Your task to perform on an android device: turn off picture-in-picture Image 0: 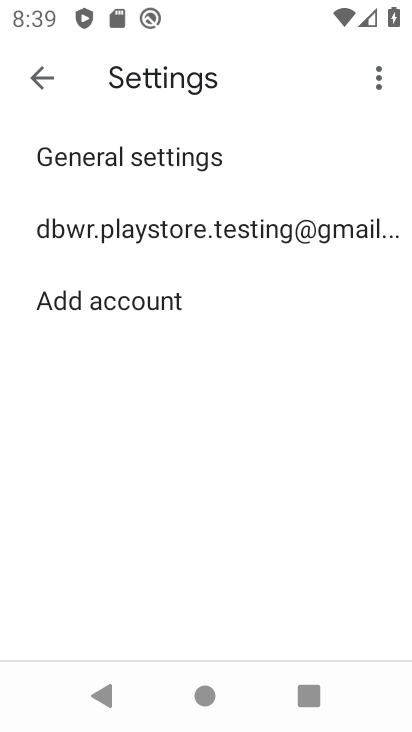
Step 0: press back button
Your task to perform on an android device: turn off picture-in-picture Image 1: 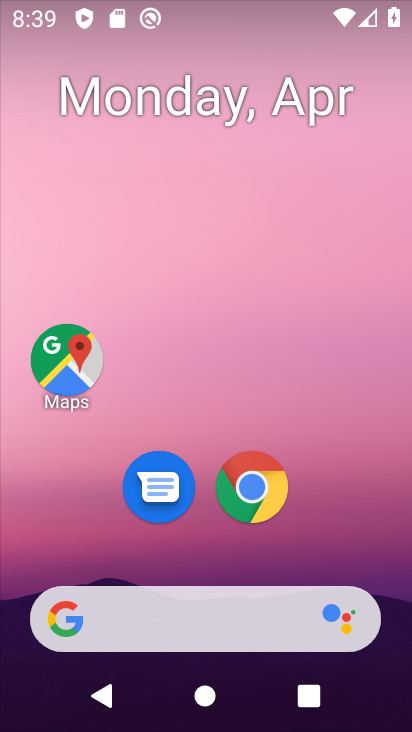
Step 1: drag from (203, 726) to (187, 43)
Your task to perform on an android device: turn off picture-in-picture Image 2: 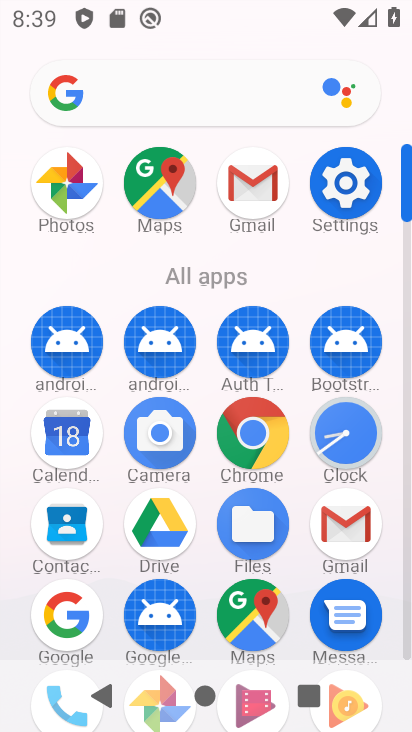
Step 2: click (344, 186)
Your task to perform on an android device: turn off picture-in-picture Image 3: 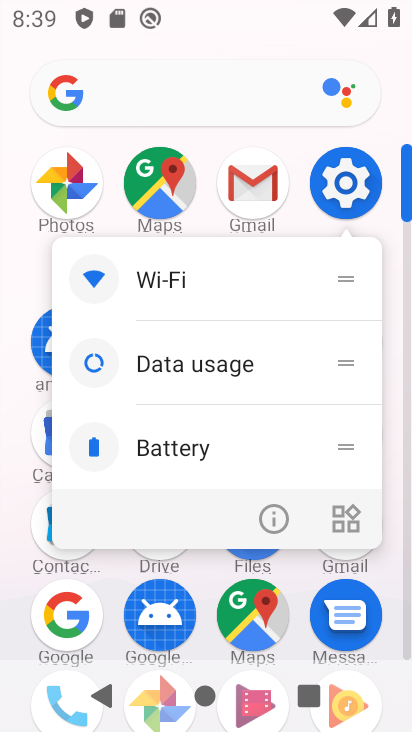
Step 3: click (345, 181)
Your task to perform on an android device: turn off picture-in-picture Image 4: 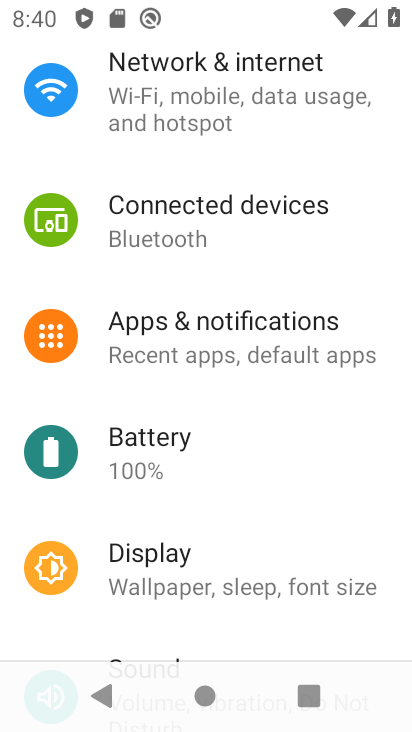
Step 4: drag from (217, 159) to (207, 446)
Your task to perform on an android device: turn off picture-in-picture Image 5: 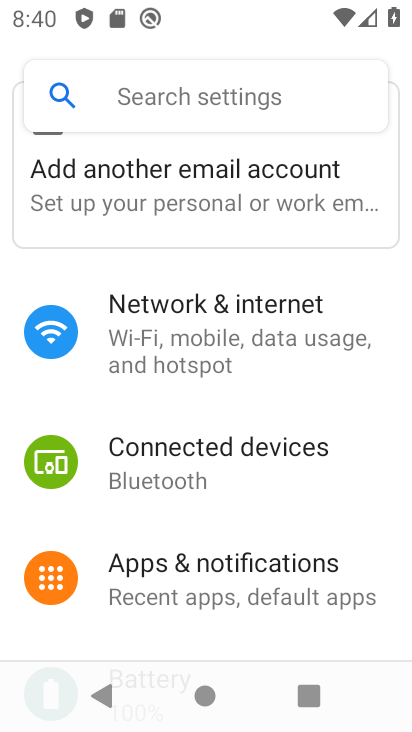
Step 5: click (200, 587)
Your task to perform on an android device: turn off picture-in-picture Image 6: 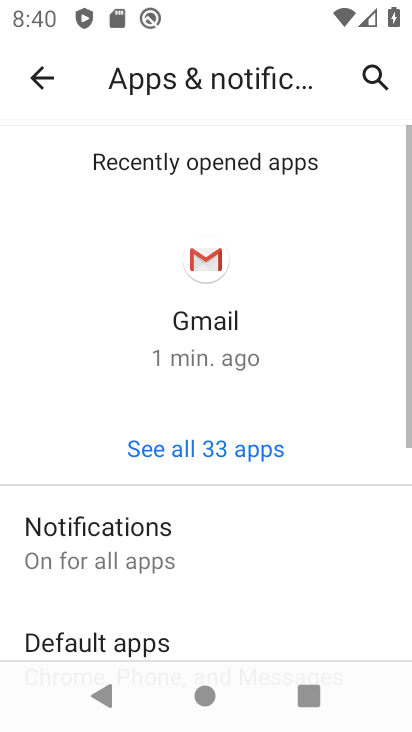
Step 6: drag from (193, 621) to (207, 241)
Your task to perform on an android device: turn off picture-in-picture Image 7: 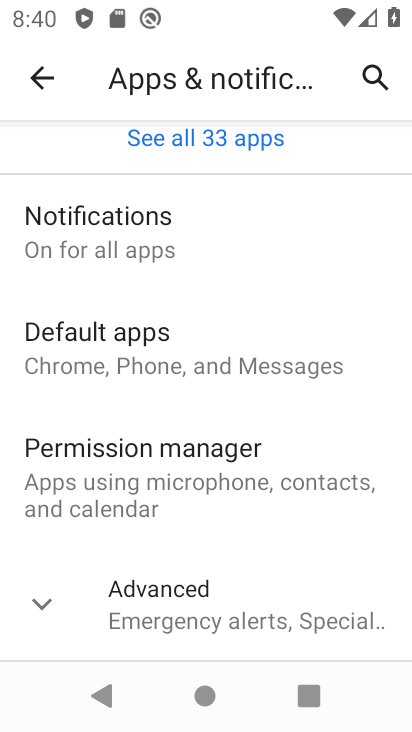
Step 7: click (163, 608)
Your task to perform on an android device: turn off picture-in-picture Image 8: 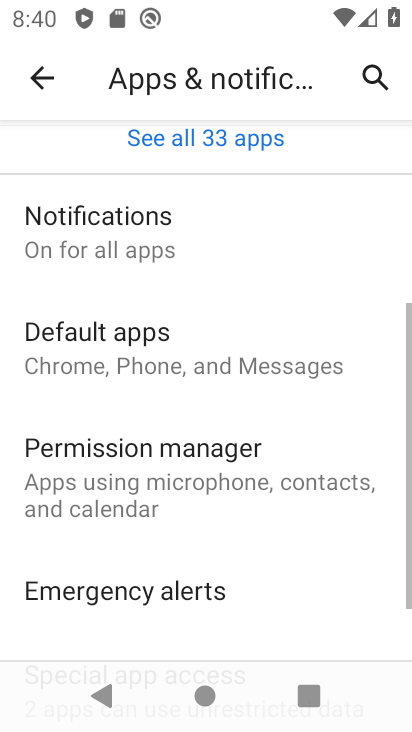
Step 8: drag from (199, 624) to (210, 272)
Your task to perform on an android device: turn off picture-in-picture Image 9: 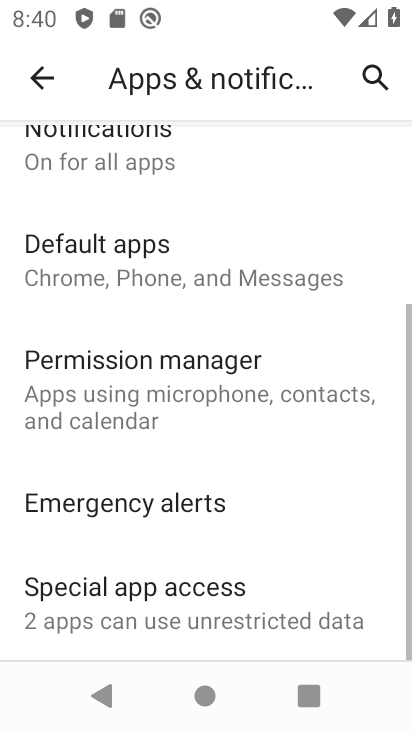
Step 9: click (155, 603)
Your task to perform on an android device: turn off picture-in-picture Image 10: 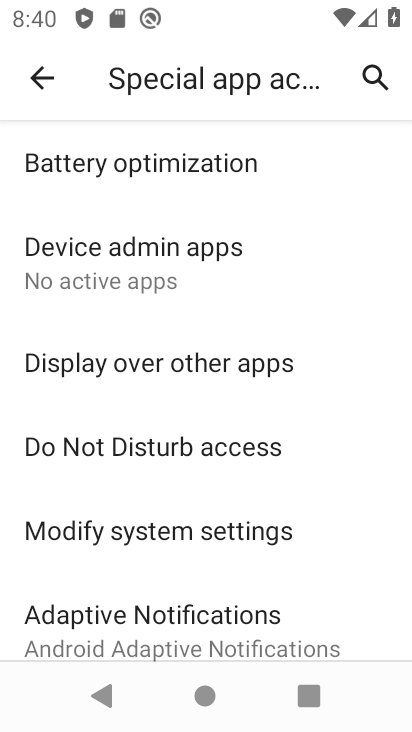
Step 10: drag from (193, 584) to (208, 311)
Your task to perform on an android device: turn off picture-in-picture Image 11: 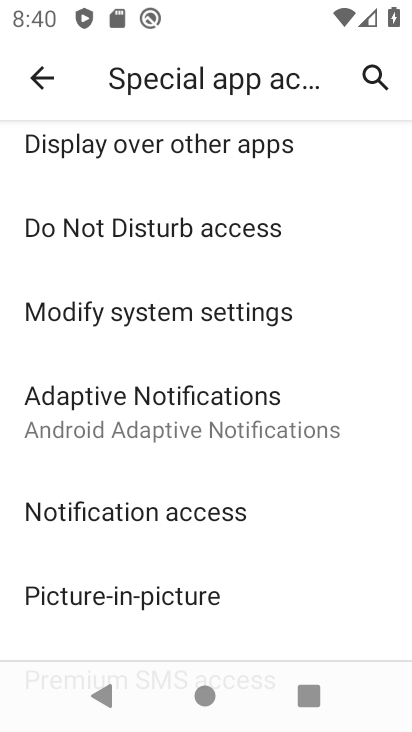
Step 11: click (162, 595)
Your task to perform on an android device: turn off picture-in-picture Image 12: 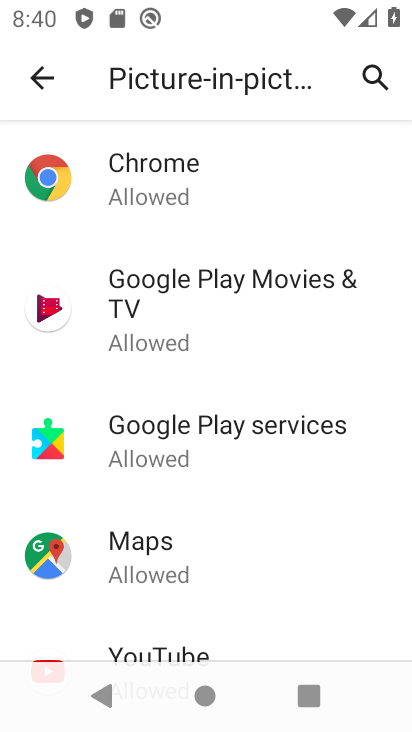
Step 12: drag from (227, 624) to (237, 335)
Your task to perform on an android device: turn off picture-in-picture Image 13: 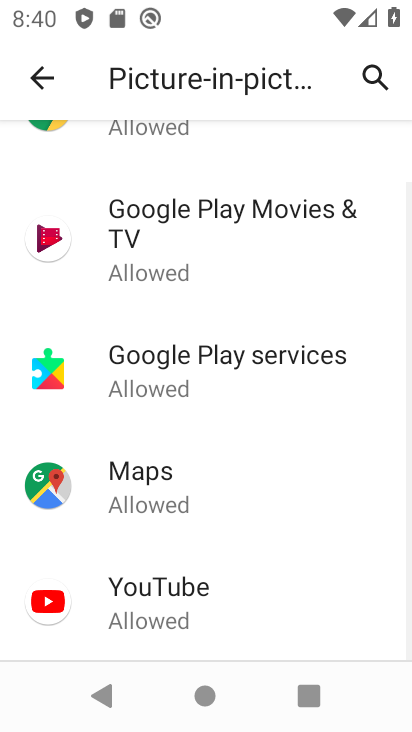
Step 13: click (139, 598)
Your task to perform on an android device: turn off picture-in-picture Image 14: 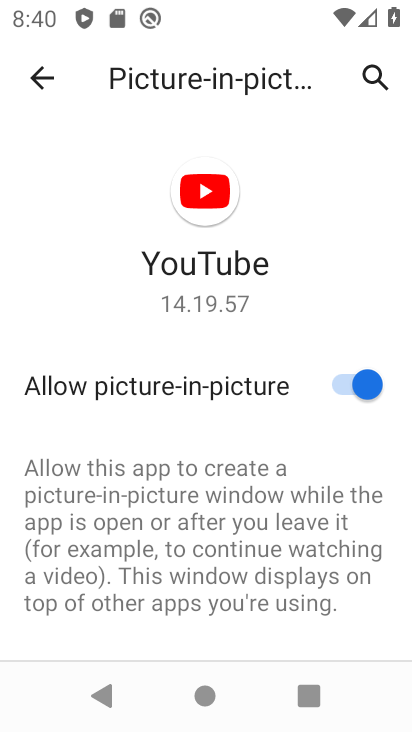
Step 14: click (342, 386)
Your task to perform on an android device: turn off picture-in-picture Image 15: 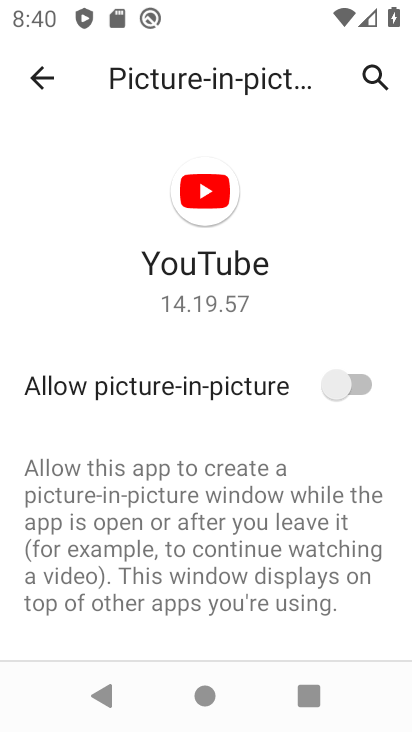
Step 15: task complete